Your task to perform on an android device: Go to Reddit.com Image 0: 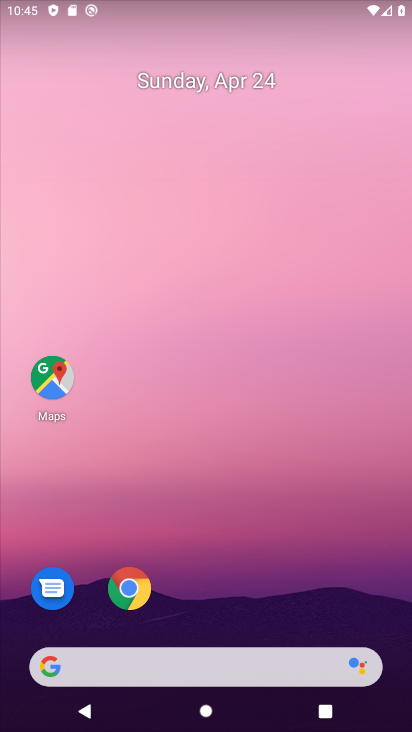
Step 0: click (128, 598)
Your task to perform on an android device: Go to Reddit.com Image 1: 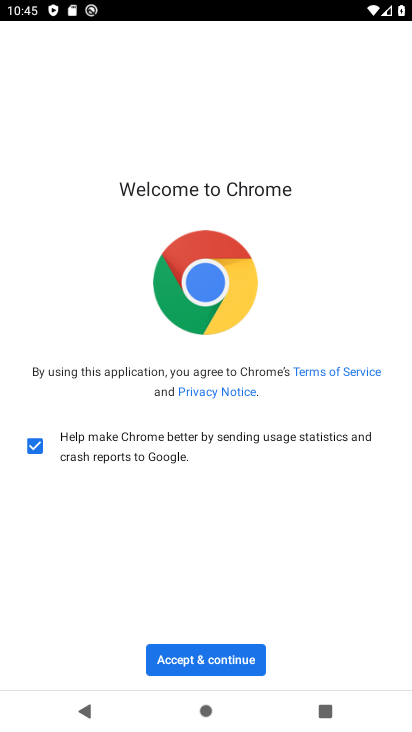
Step 1: click (162, 653)
Your task to perform on an android device: Go to Reddit.com Image 2: 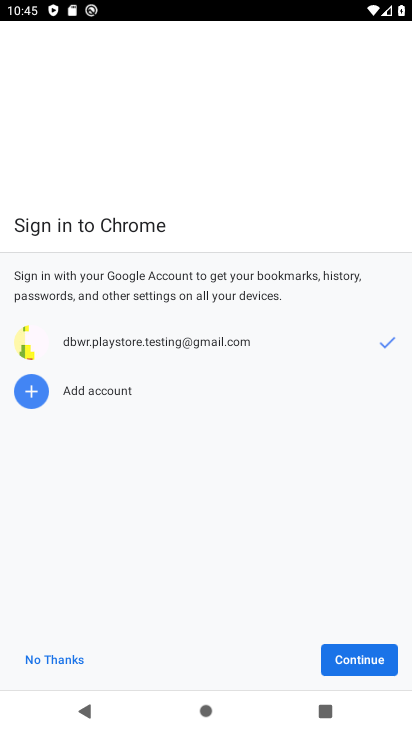
Step 2: click (373, 651)
Your task to perform on an android device: Go to Reddit.com Image 3: 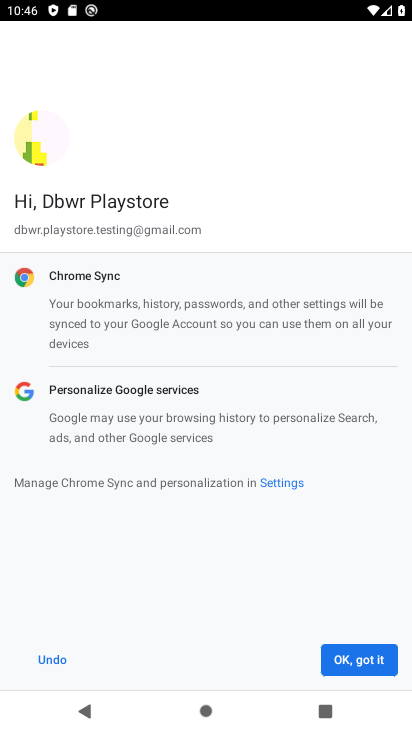
Step 3: click (349, 653)
Your task to perform on an android device: Go to Reddit.com Image 4: 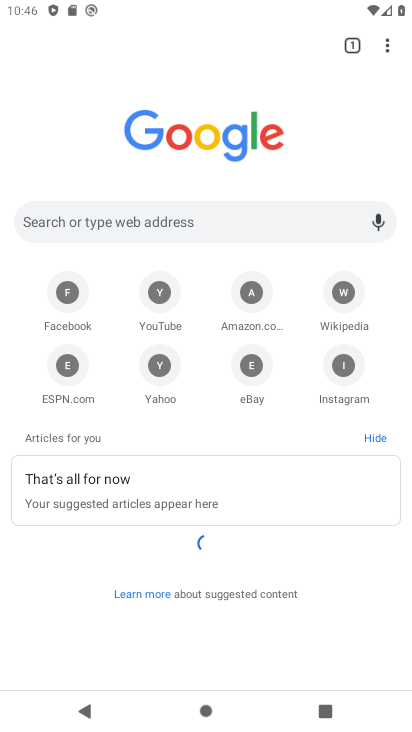
Step 4: click (201, 223)
Your task to perform on an android device: Go to Reddit.com Image 5: 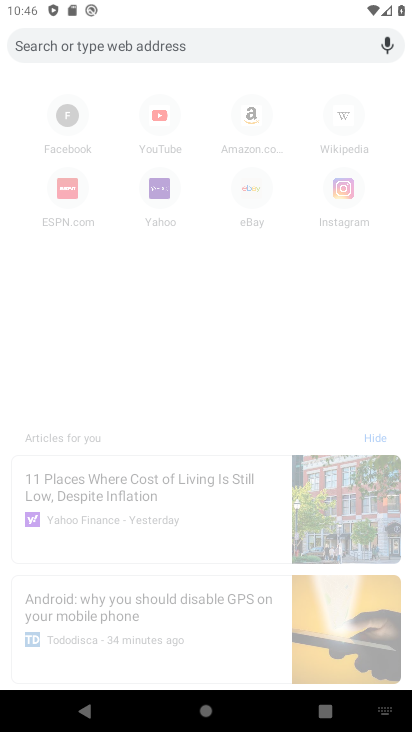
Step 5: type "reddit.com"
Your task to perform on an android device: Go to Reddit.com Image 6: 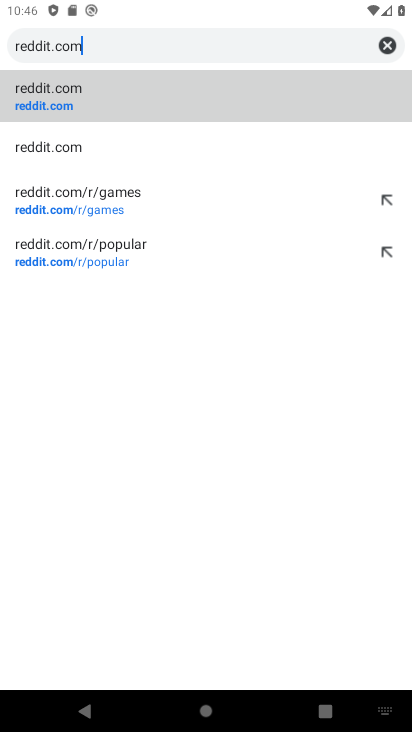
Step 6: click (182, 88)
Your task to perform on an android device: Go to Reddit.com Image 7: 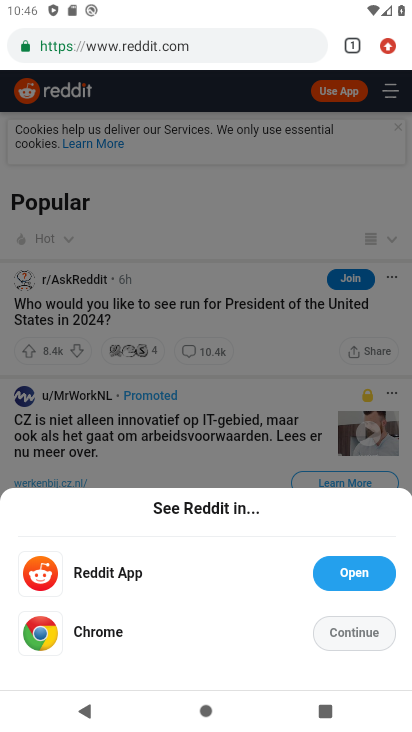
Step 7: task complete